Your task to perform on an android device: change the clock display to analog Image 0: 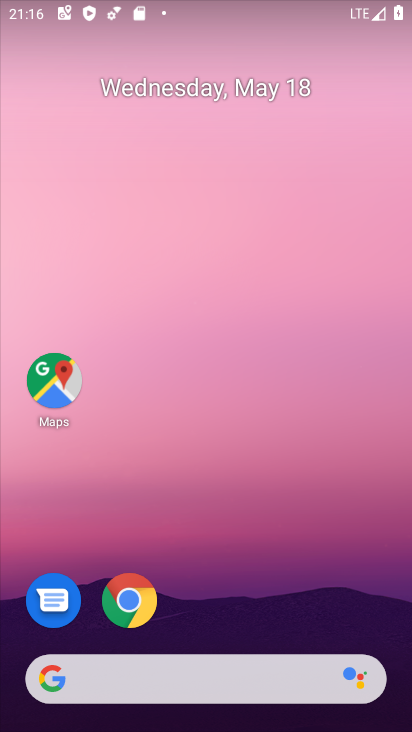
Step 0: drag from (213, 598) to (248, 81)
Your task to perform on an android device: change the clock display to analog Image 1: 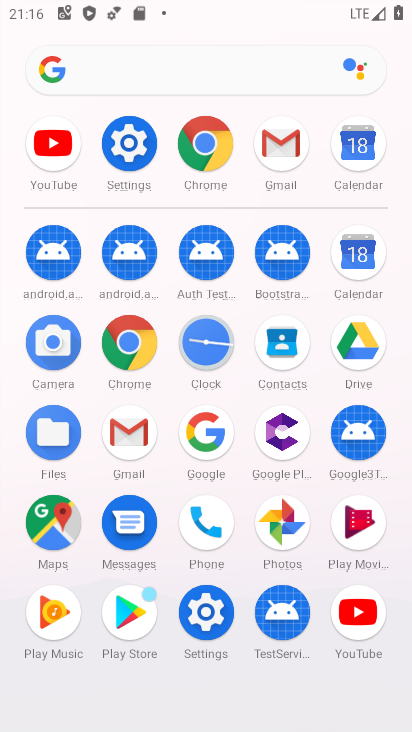
Step 1: click (200, 327)
Your task to perform on an android device: change the clock display to analog Image 2: 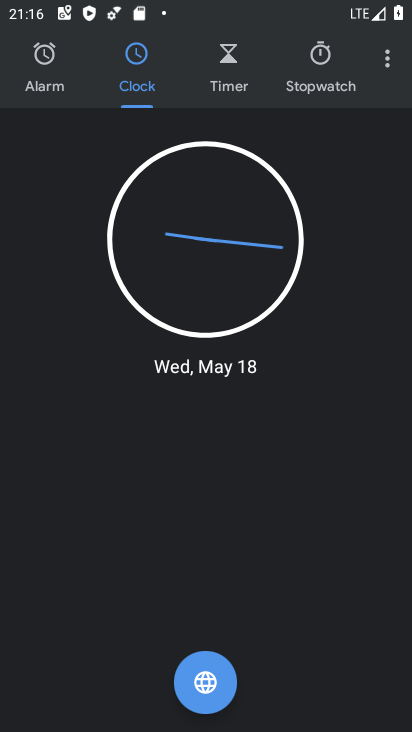
Step 2: click (390, 77)
Your task to perform on an android device: change the clock display to analog Image 3: 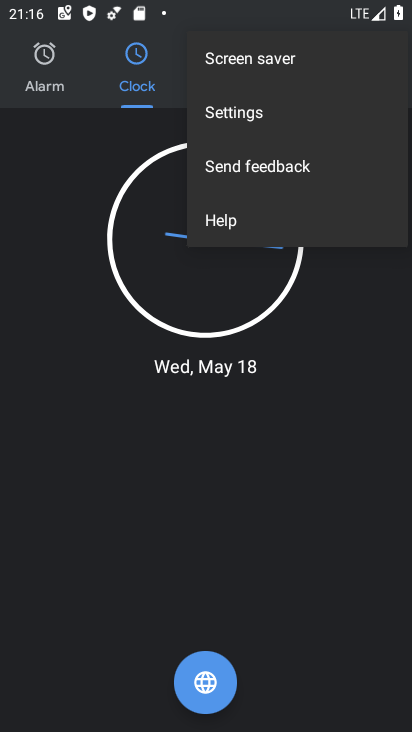
Step 3: click (272, 110)
Your task to perform on an android device: change the clock display to analog Image 4: 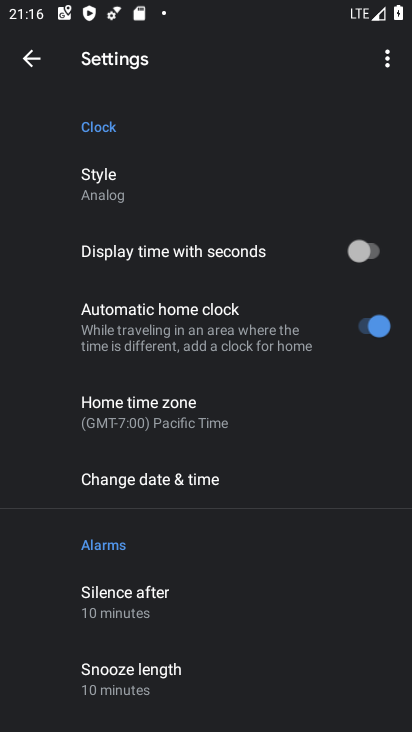
Step 4: task complete